Your task to perform on an android device: refresh tabs in the chrome app Image 0: 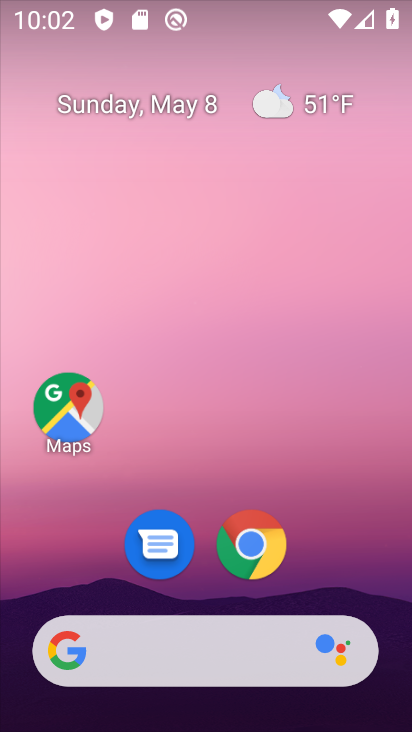
Step 0: drag from (366, 597) to (322, 164)
Your task to perform on an android device: refresh tabs in the chrome app Image 1: 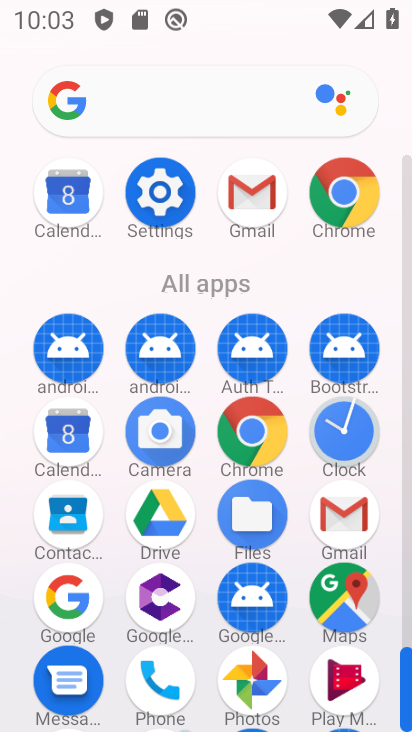
Step 1: click (348, 226)
Your task to perform on an android device: refresh tabs in the chrome app Image 2: 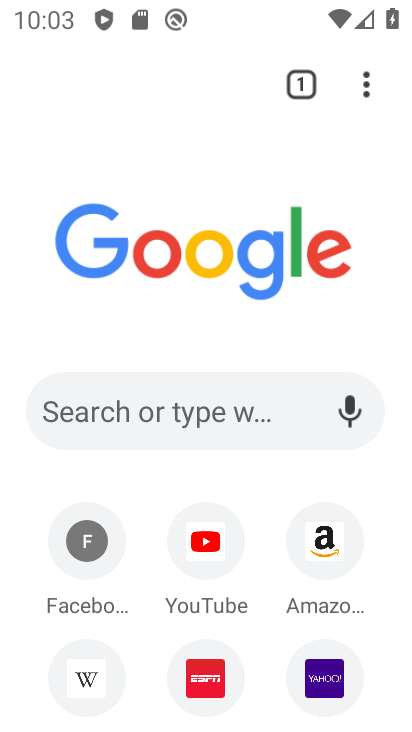
Step 2: task complete